Your task to perform on an android device: find snoozed emails in the gmail app Image 0: 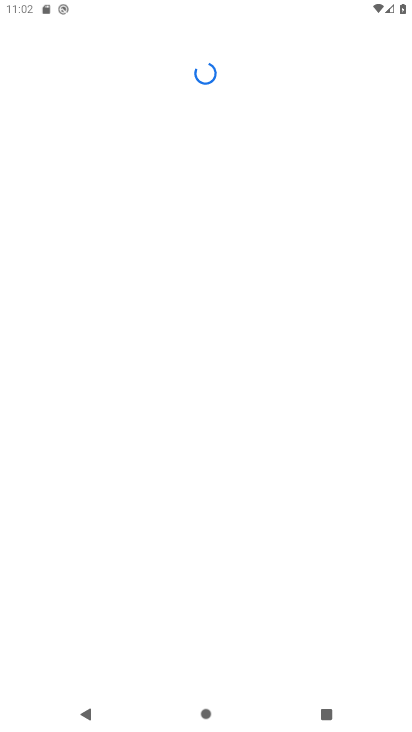
Step 0: press home button
Your task to perform on an android device: find snoozed emails in the gmail app Image 1: 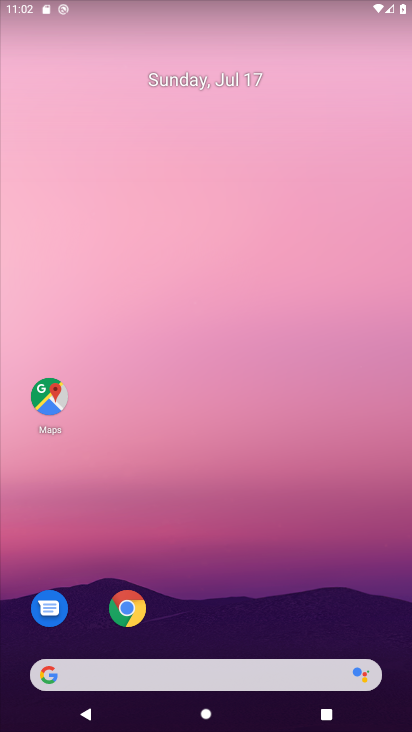
Step 1: drag from (219, 567) to (223, 304)
Your task to perform on an android device: find snoozed emails in the gmail app Image 2: 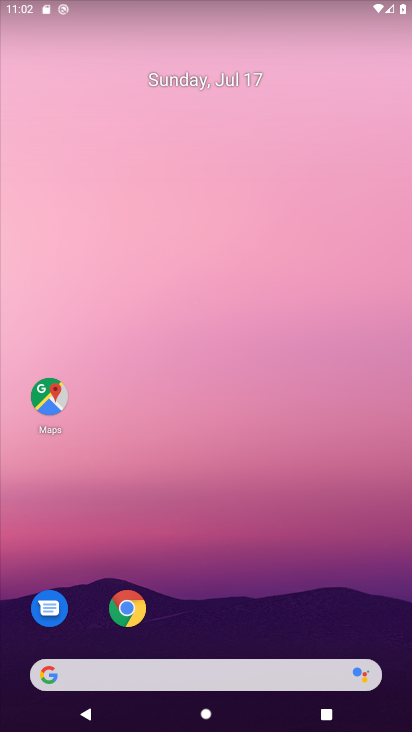
Step 2: drag from (206, 627) to (196, 316)
Your task to perform on an android device: find snoozed emails in the gmail app Image 3: 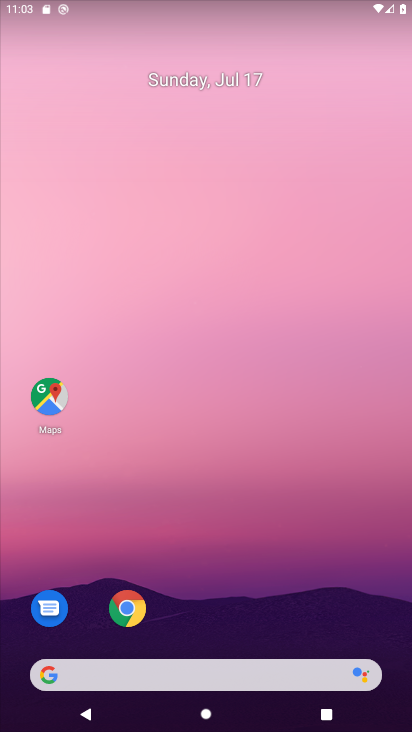
Step 3: drag from (211, 660) to (204, 399)
Your task to perform on an android device: find snoozed emails in the gmail app Image 4: 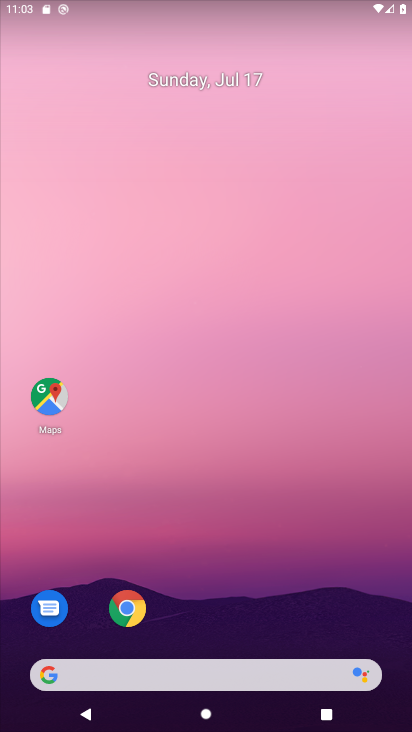
Step 4: drag from (193, 679) to (209, 196)
Your task to perform on an android device: find snoozed emails in the gmail app Image 5: 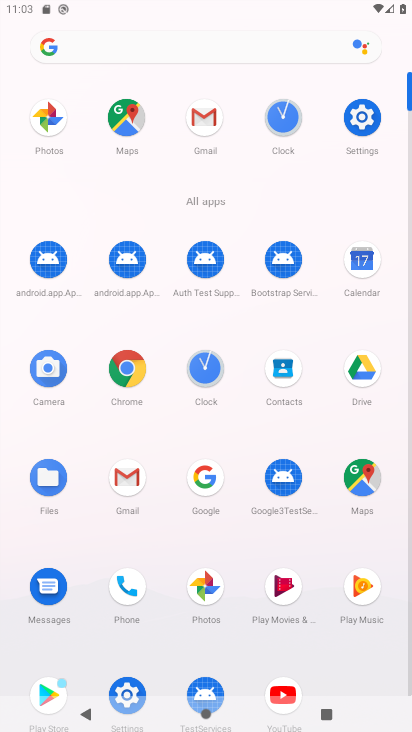
Step 5: click (209, 109)
Your task to perform on an android device: find snoozed emails in the gmail app Image 6: 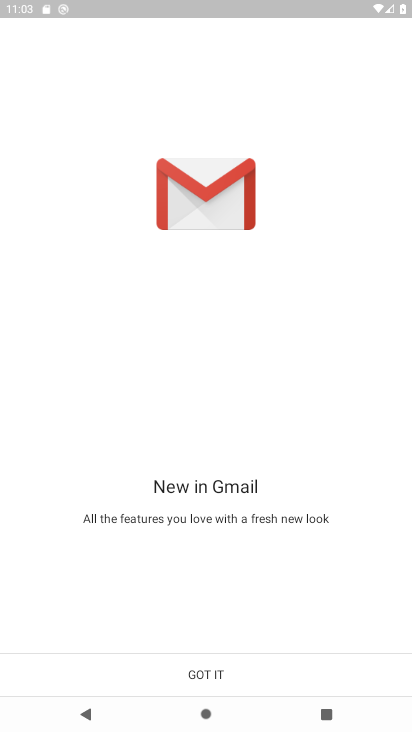
Step 6: click (209, 680)
Your task to perform on an android device: find snoozed emails in the gmail app Image 7: 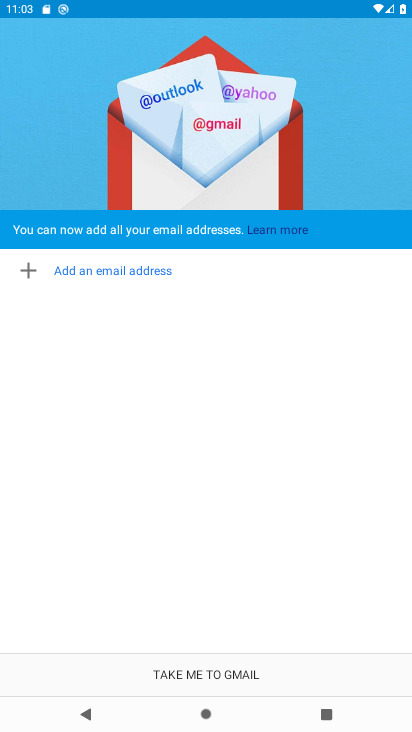
Step 7: click (202, 680)
Your task to perform on an android device: find snoozed emails in the gmail app Image 8: 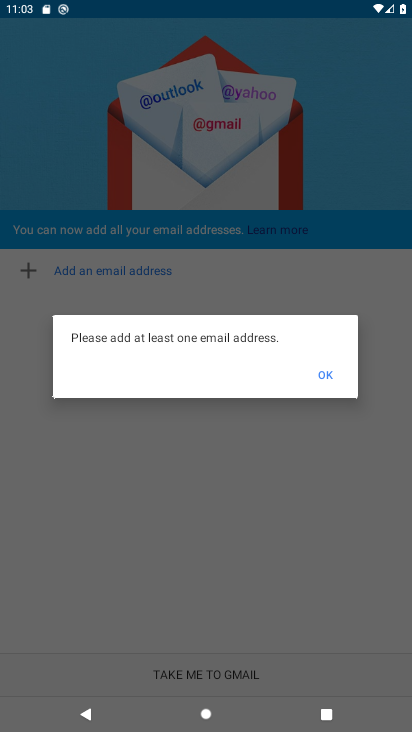
Step 8: click (315, 375)
Your task to perform on an android device: find snoozed emails in the gmail app Image 9: 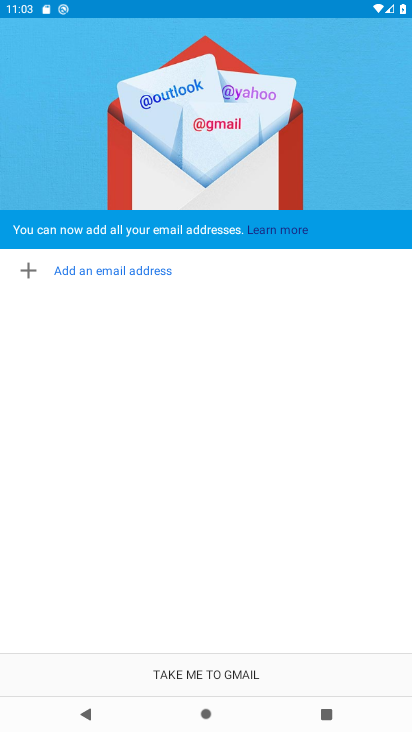
Step 9: task complete